Your task to perform on an android device: Open wifi settings Image 0: 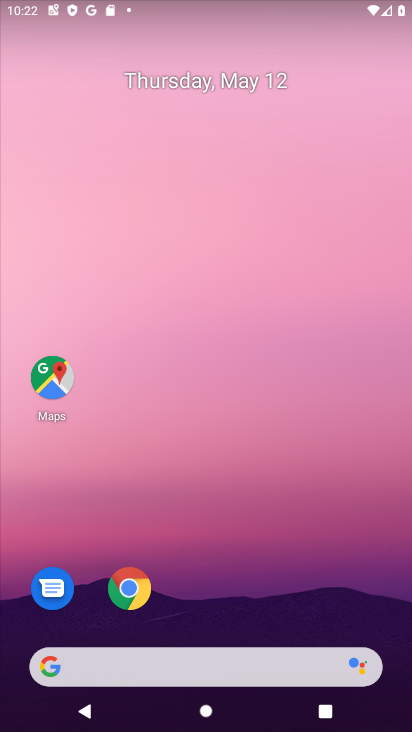
Step 0: drag from (213, 647) to (261, 187)
Your task to perform on an android device: Open wifi settings Image 1: 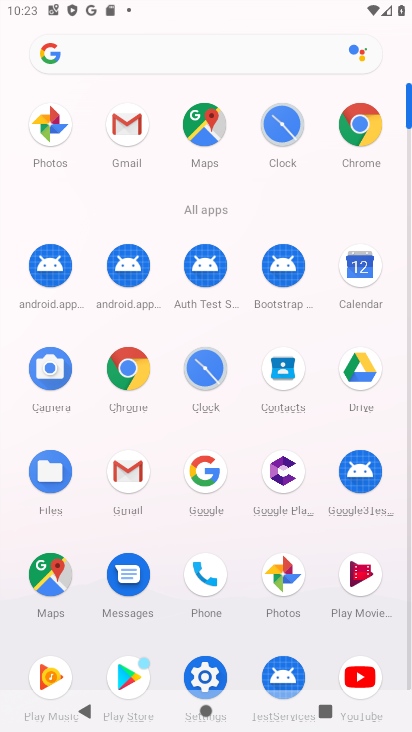
Step 1: click (207, 672)
Your task to perform on an android device: Open wifi settings Image 2: 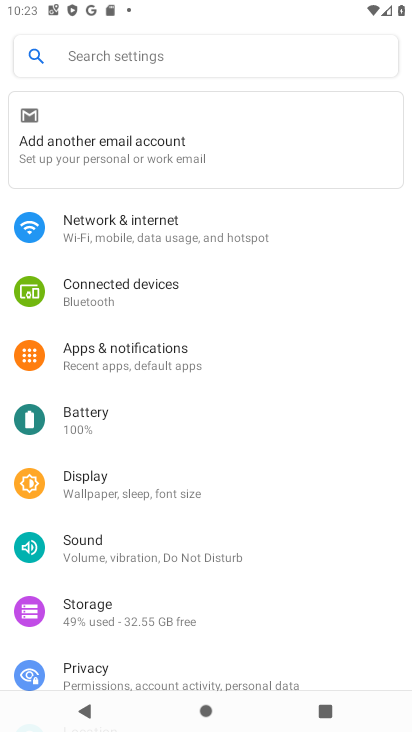
Step 2: click (162, 234)
Your task to perform on an android device: Open wifi settings Image 3: 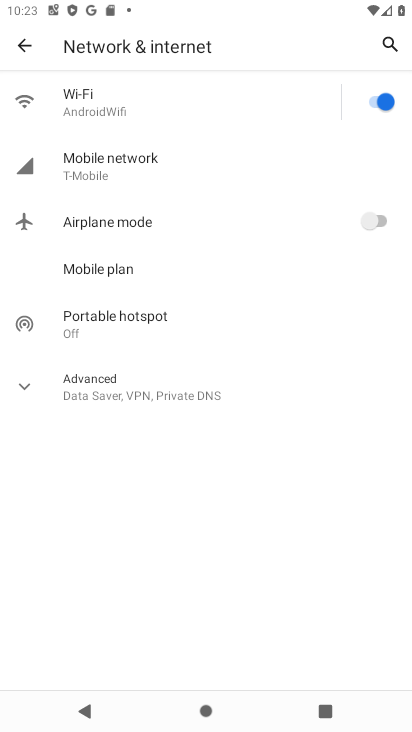
Step 3: click (119, 94)
Your task to perform on an android device: Open wifi settings Image 4: 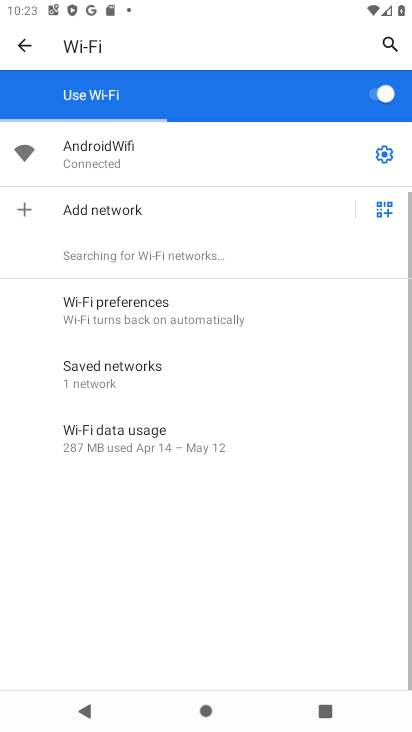
Step 4: click (383, 154)
Your task to perform on an android device: Open wifi settings Image 5: 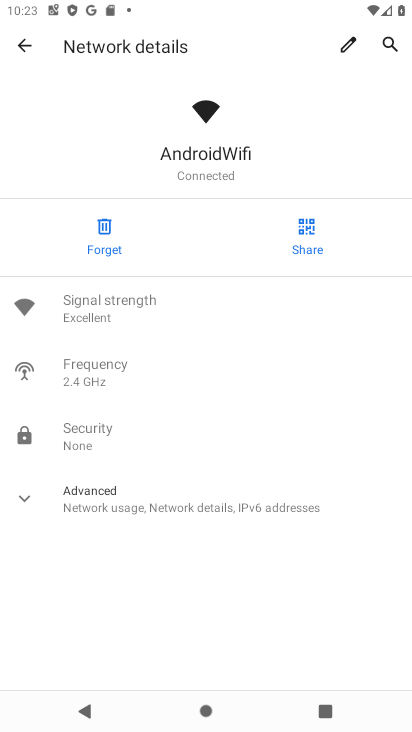
Step 5: task complete